Your task to perform on an android device: Is it going to rain today? Image 0: 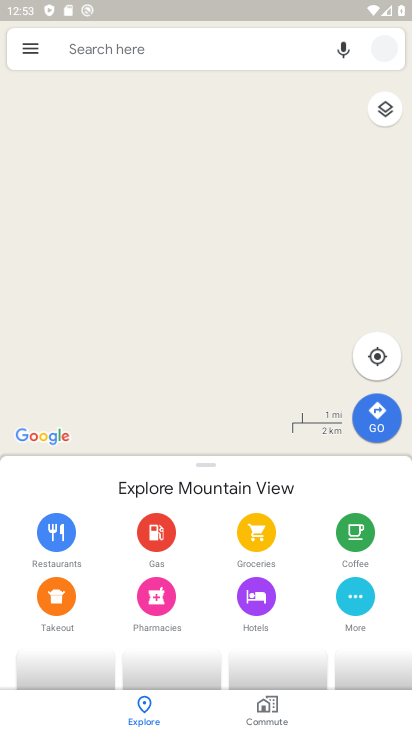
Step 0: press home button
Your task to perform on an android device: Is it going to rain today? Image 1: 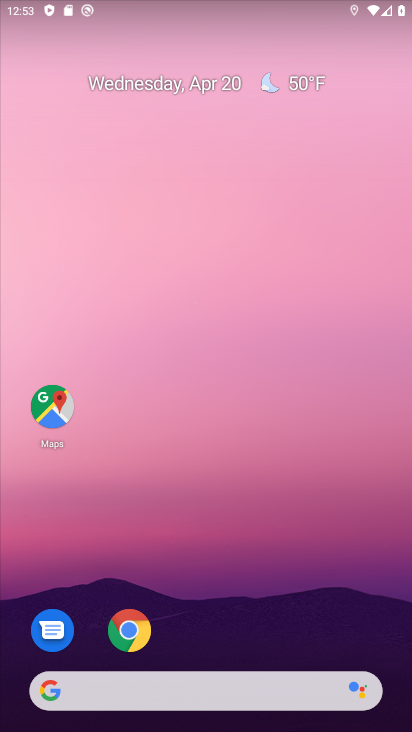
Step 1: drag from (256, 611) to (259, 85)
Your task to perform on an android device: Is it going to rain today? Image 2: 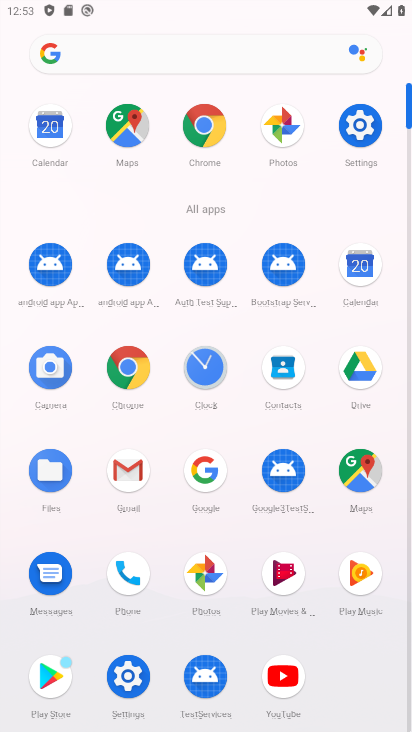
Step 2: click (202, 464)
Your task to perform on an android device: Is it going to rain today? Image 3: 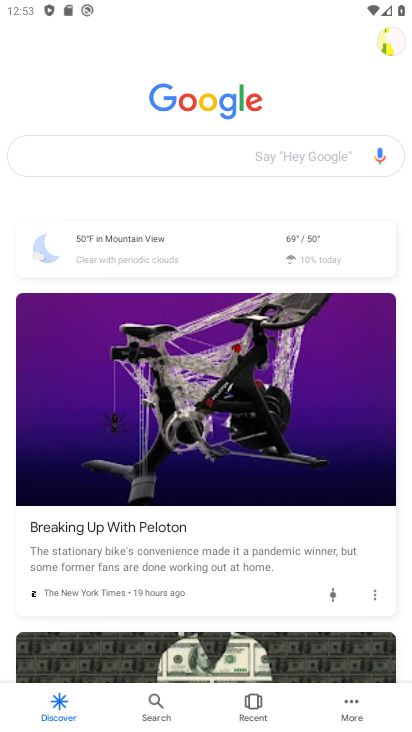
Step 3: click (176, 159)
Your task to perform on an android device: Is it going to rain today? Image 4: 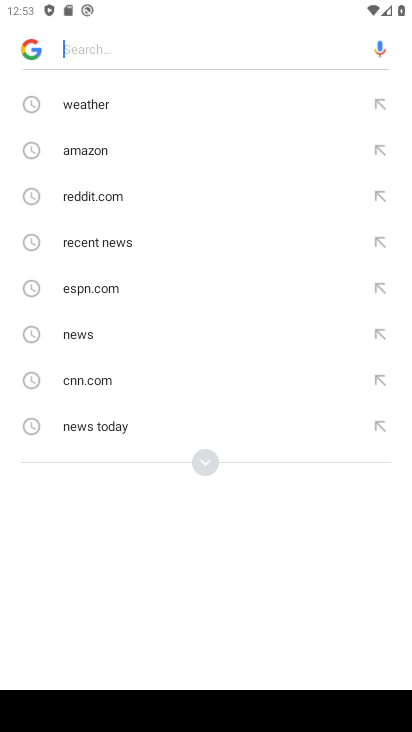
Step 4: type "is it going rain today"
Your task to perform on an android device: Is it going to rain today? Image 5: 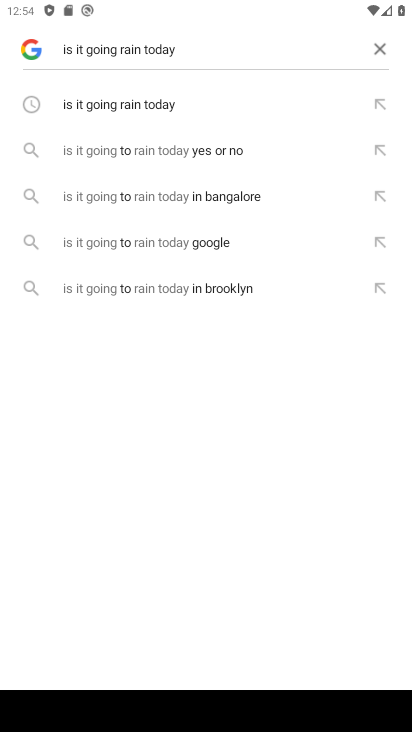
Step 5: click (203, 109)
Your task to perform on an android device: Is it going to rain today? Image 6: 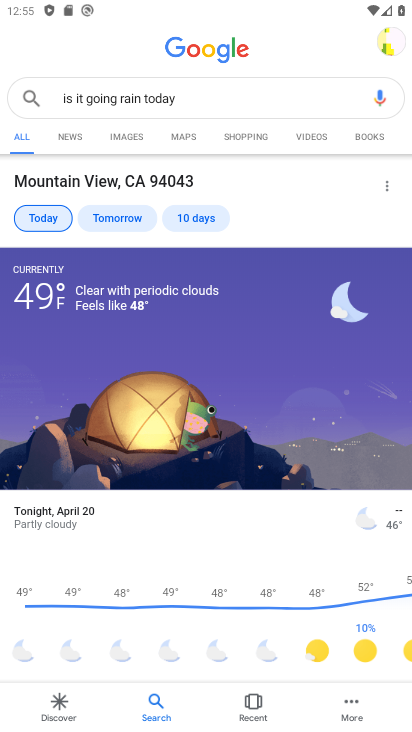
Step 6: task complete